Your task to perform on an android device: toggle wifi Image 0: 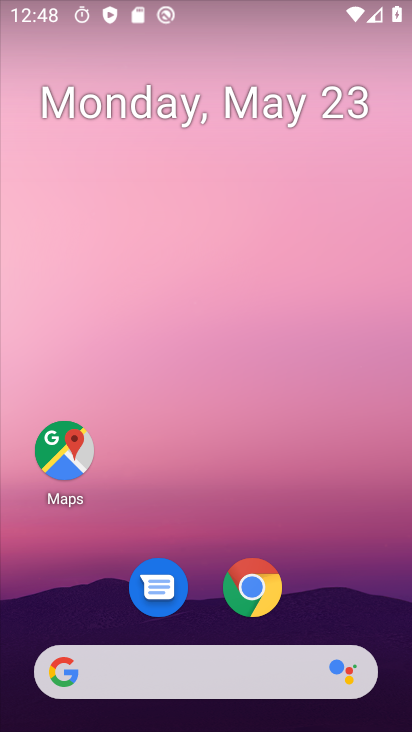
Step 0: drag from (100, 38) to (143, 620)
Your task to perform on an android device: toggle wifi Image 1: 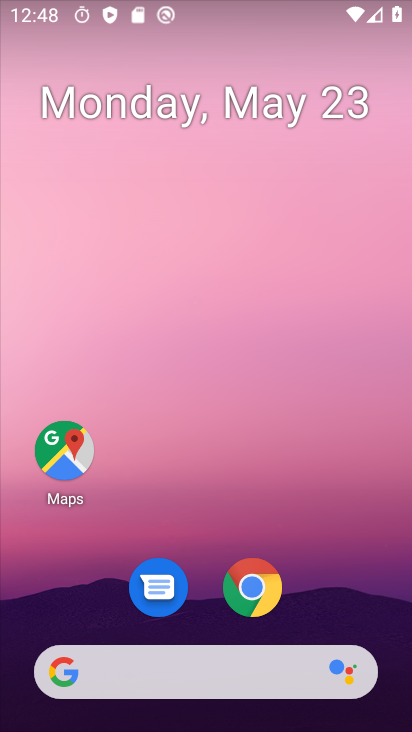
Step 1: drag from (96, 9) to (136, 555)
Your task to perform on an android device: toggle wifi Image 2: 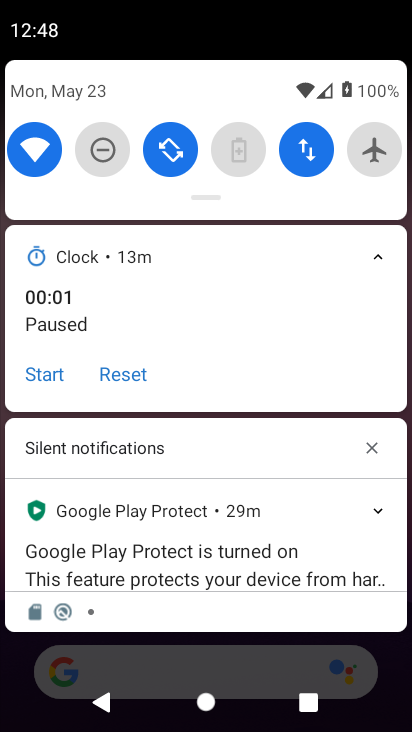
Step 2: click (36, 150)
Your task to perform on an android device: toggle wifi Image 3: 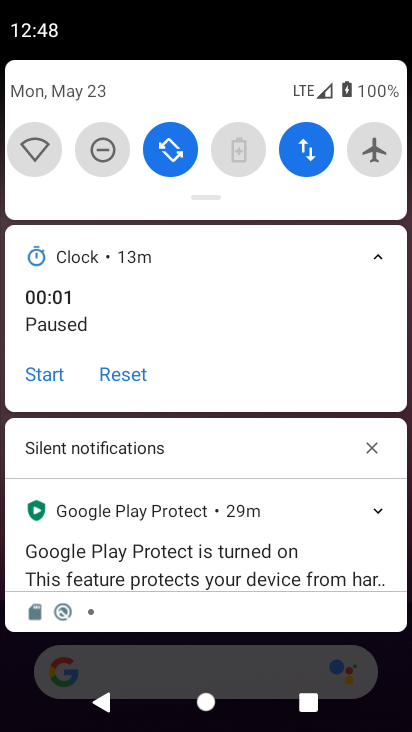
Step 3: task complete